Your task to perform on an android device: Search for Italian restaurants on Maps Image 0: 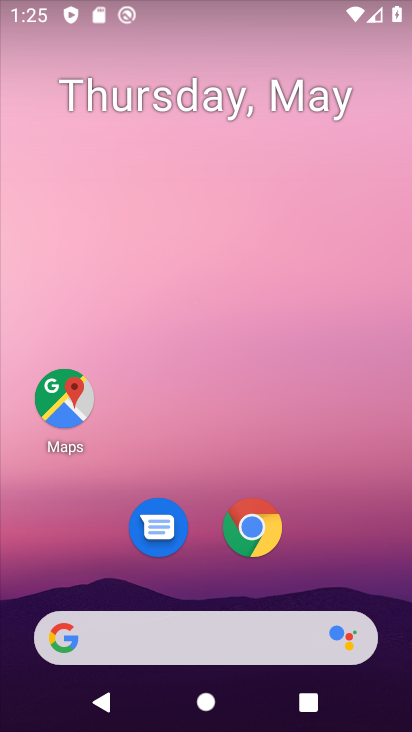
Step 0: click (71, 400)
Your task to perform on an android device: Search for Italian restaurants on Maps Image 1: 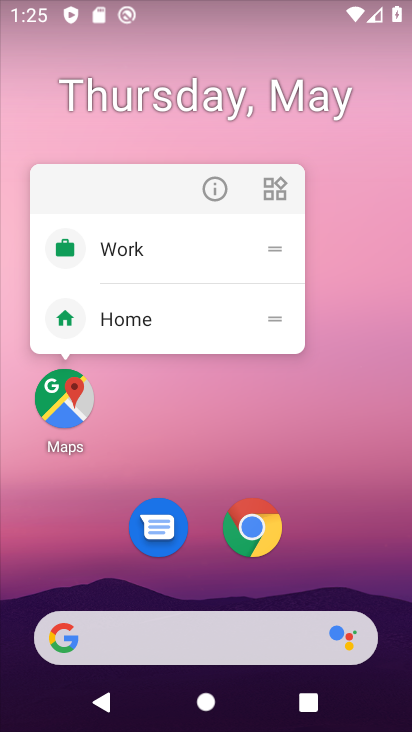
Step 1: click (228, 189)
Your task to perform on an android device: Search for Italian restaurants on Maps Image 2: 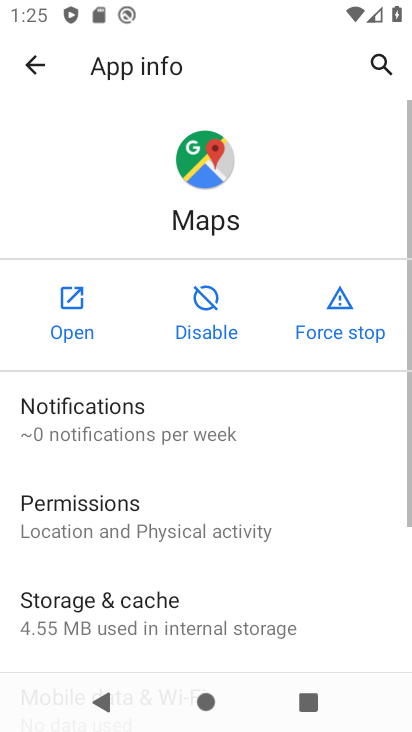
Step 2: click (56, 322)
Your task to perform on an android device: Search for Italian restaurants on Maps Image 3: 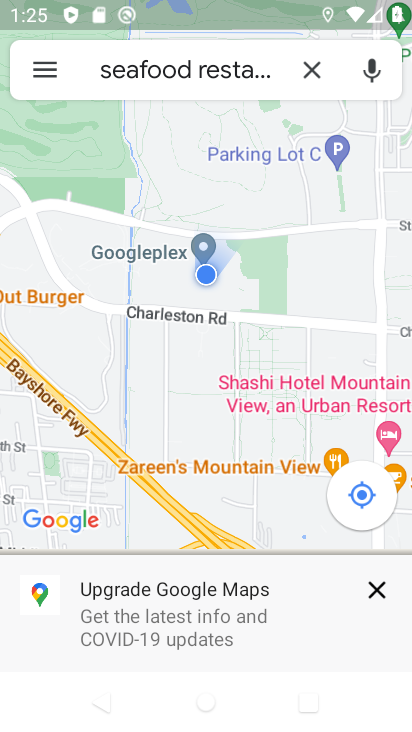
Step 3: press home button
Your task to perform on an android device: Search for Italian restaurants on Maps Image 4: 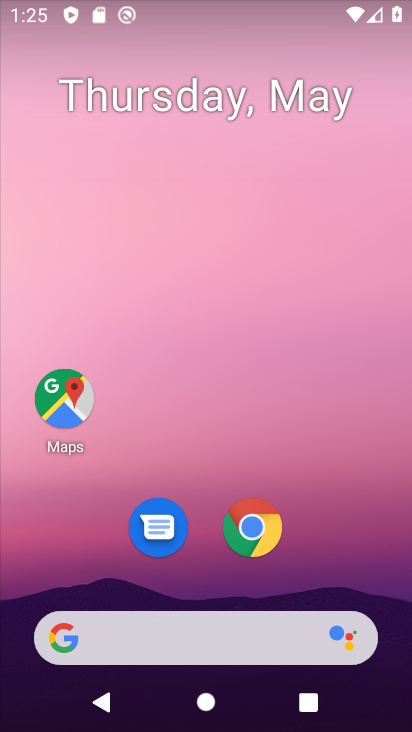
Step 4: drag from (208, 566) to (219, 121)
Your task to perform on an android device: Search for Italian restaurants on Maps Image 5: 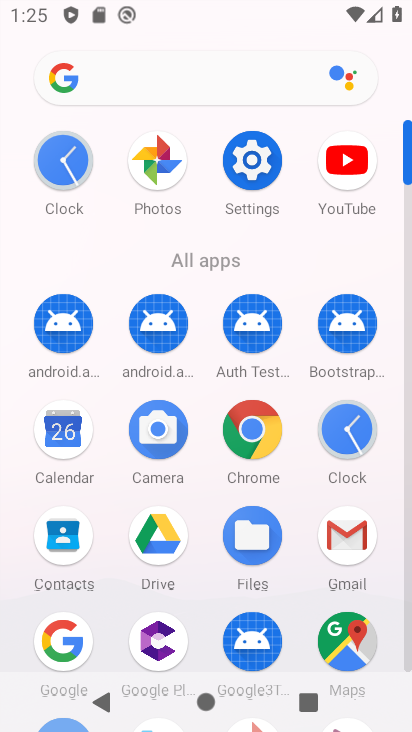
Step 5: click (355, 644)
Your task to perform on an android device: Search for Italian restaurants on Maps Image 6: 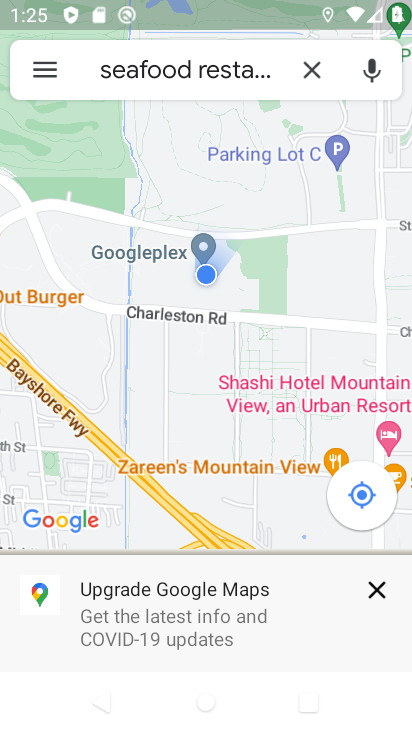
Step 6: click (314, 68)
Your task to perform on an android device: Search for Italian restaurants on Maps Image 7: 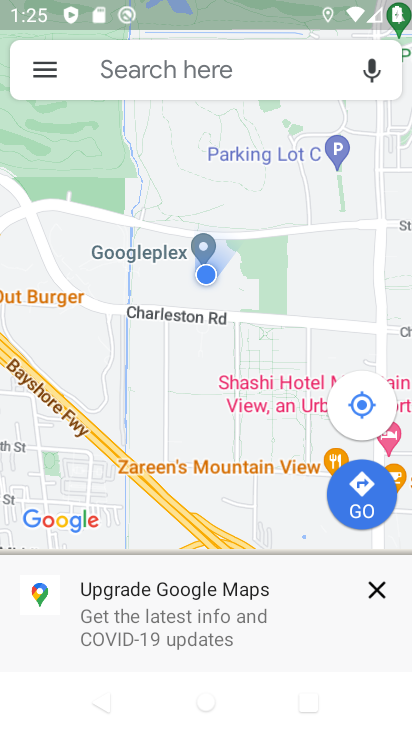
Step 7: click (113, 66)
Your task to perform on an android device: Search for Italian restaurants on Maps Image 8: 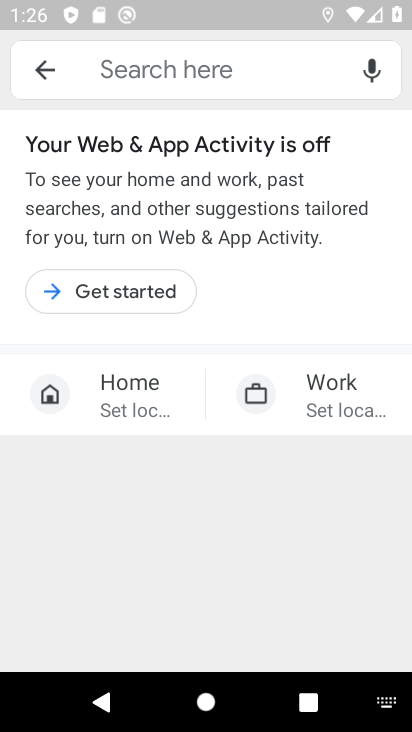
Step 8: type "Italian restaurants"
Your task to perform on an android device: Search for Italian restaurants on Maps Image 9: 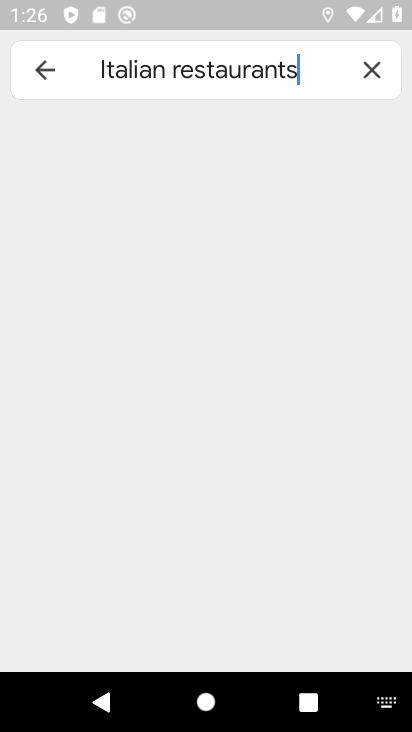
Step 9: type ""
Your task to perform on an android device: Search for Italian restaurants on Maps Image 10: 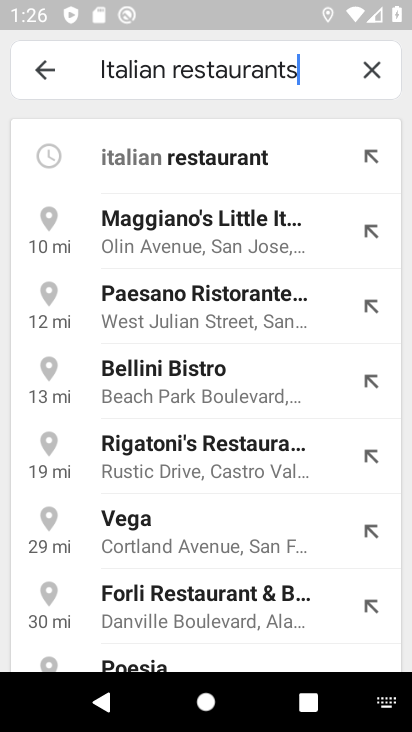
Step 10: click (165, 156)
Your task to perform on an android device: Search for Italian restaurants on Maps Image 11: 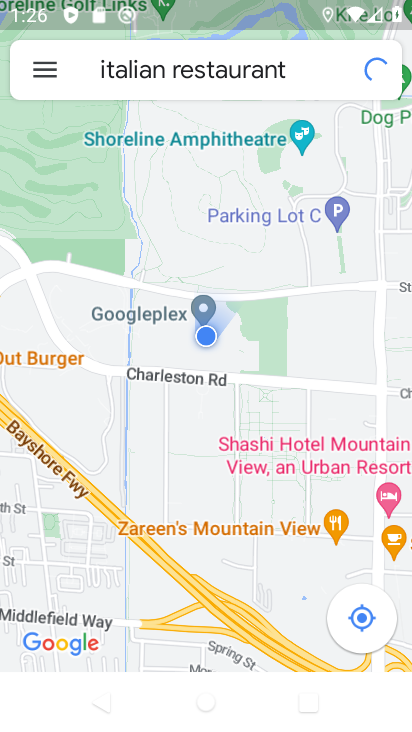
Step 11: task complete